Your task to perform on an android device: What's the weather today? Image 0: 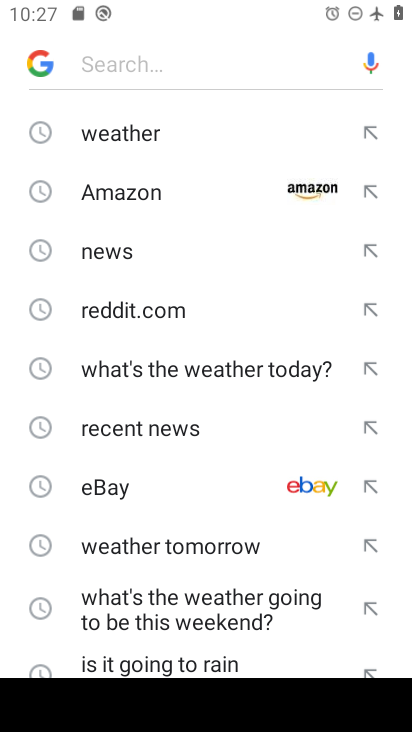
Step 0: click (112, 137)
Your task to perform on an android device: What's the weather today? Image 1: 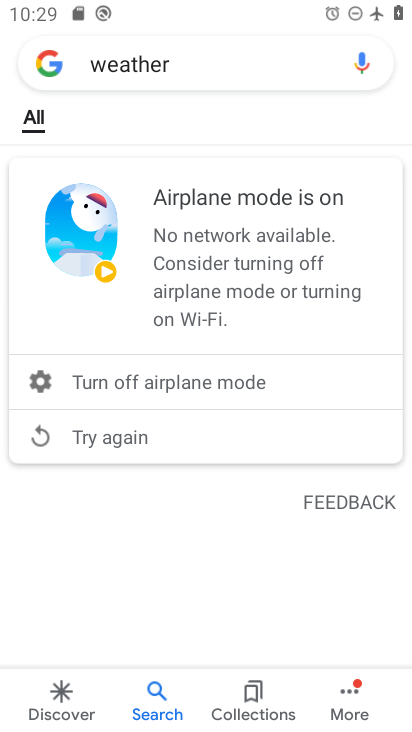
Step 1: task complete